Your task to perform on an android device: choose inbox layout in the gmail app Image 0: 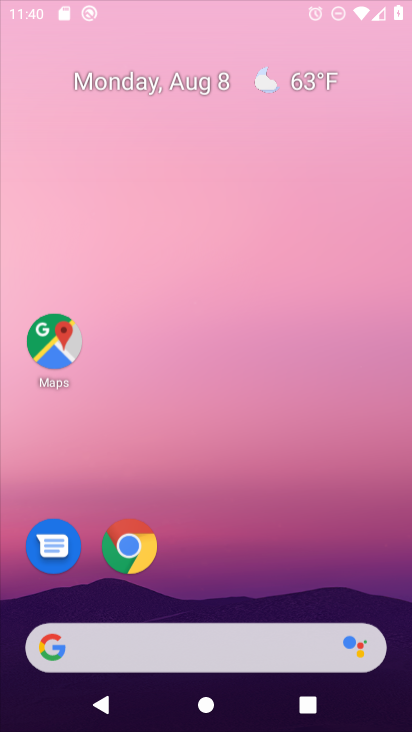
Step 0: press home button
Your task to perform on an android device: choose inbox layout in the gmail app Image 1: 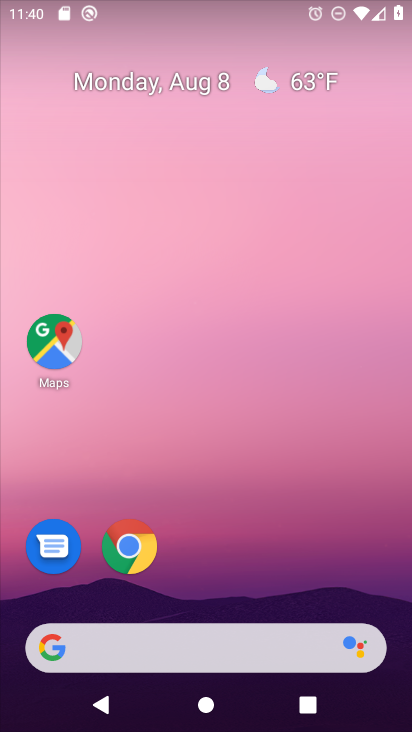
Step 1: drag from (235, 613) to (274, 54)
Your task to perform on an android device: choose inbox layout in the gmail app Image 2: 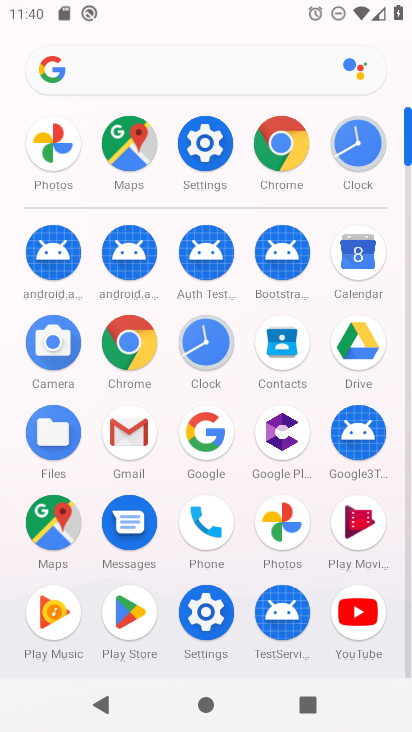
Step 2: click (123, 422)
Your task to perform on an android device: choose inbox layout in the gmail app Image 3: 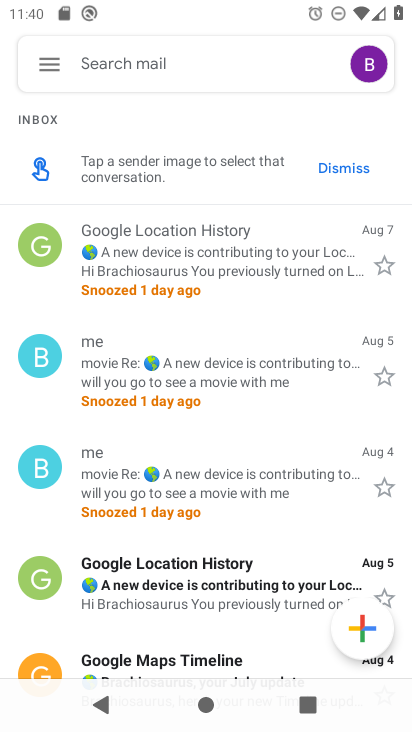
Step 3: click (47, 57)
Your task to perform on an android device: choose inbox layout in the gmail app Image 4: 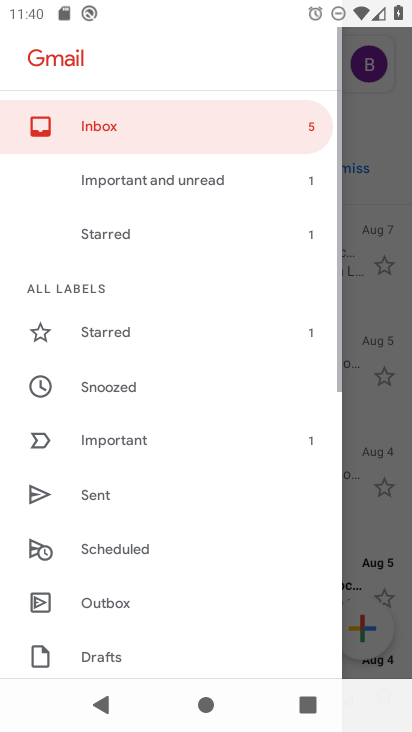
Step 4: drag from (138, 629) to (132, 189)
Your task to perform on an android device: choose inbox layout in the gmail app Image 5: 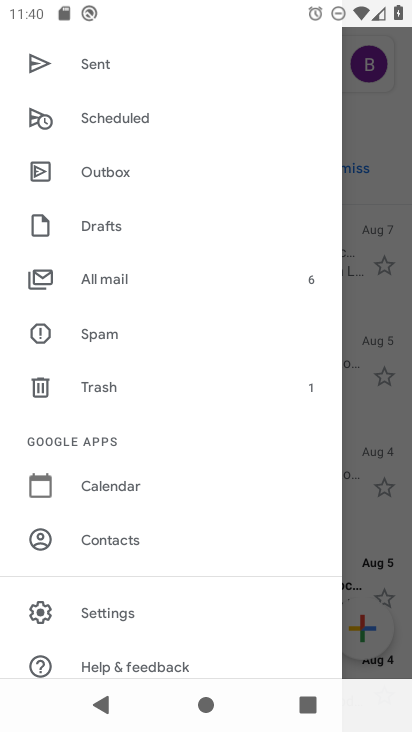
Step 5: click (141, 609)
Your task to perform on an android device: choose inbox layout in the gmail app Image 6: 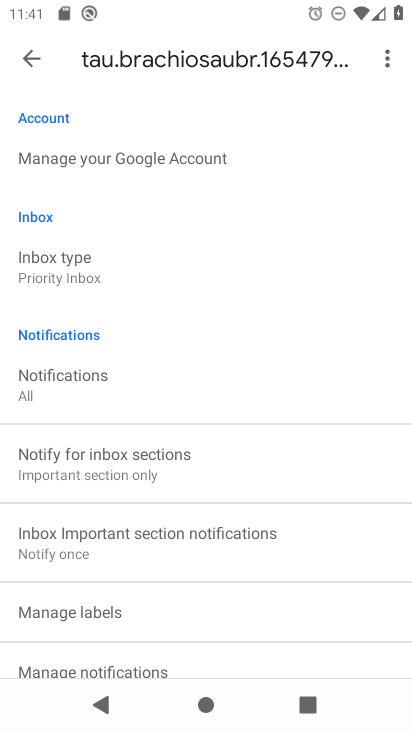
Step 6: click (105, 272)
Your task to perform on an android device: choose inbox layout in the gmail app Image 7: 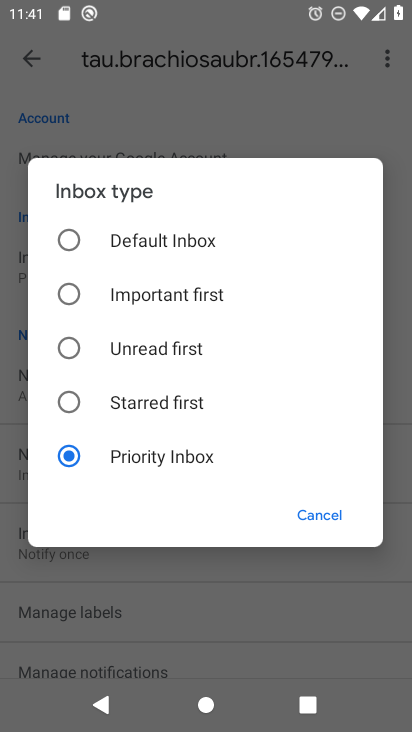
Step 7: click (71, 237)
Your task to perform on an android device: choose inbox layout in the gmail app Image 8: 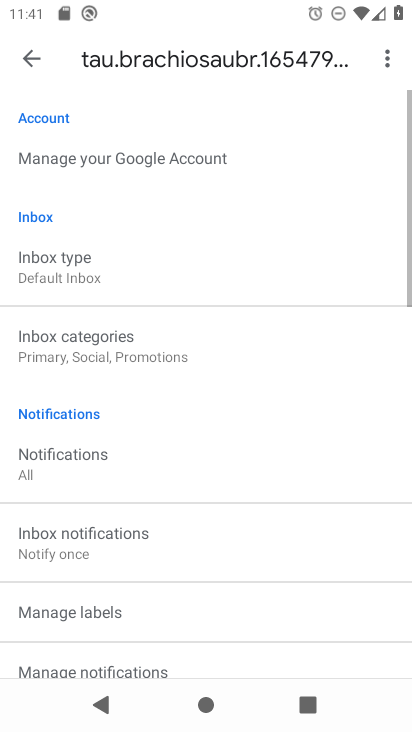
Step 8: task complete